Your task to perform on an android device: Open Android settings Image 0: 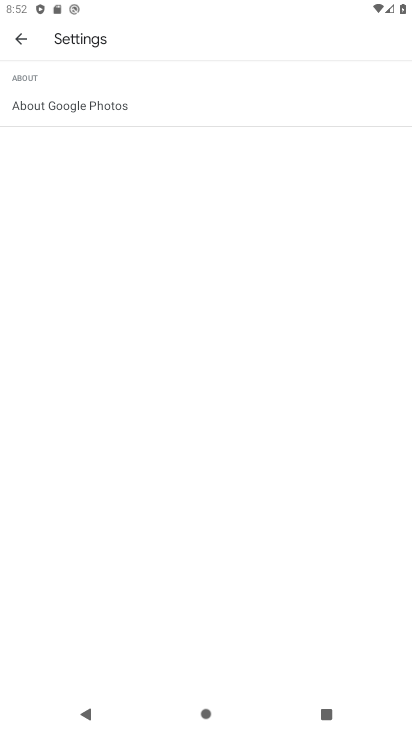
Step 0: press home button
Your task to perform on an android device: Open Android settings Image 1: 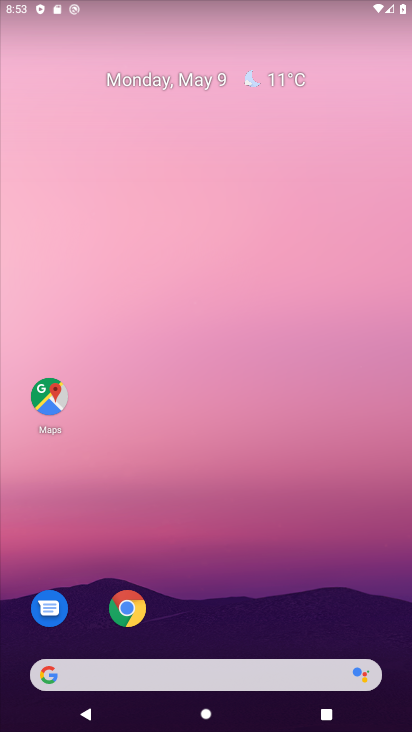
Step 1: drag from (203, 474) to (204, 239)
Your task to perform on an android device: Open Android settings Image 2: 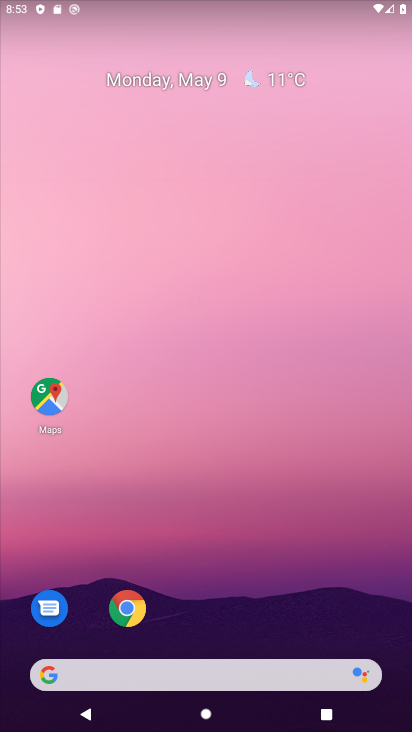
Step 2: drag from (179, 543) to (222, 215)
Your task to perform on an android device: Open Android settings Image 3: 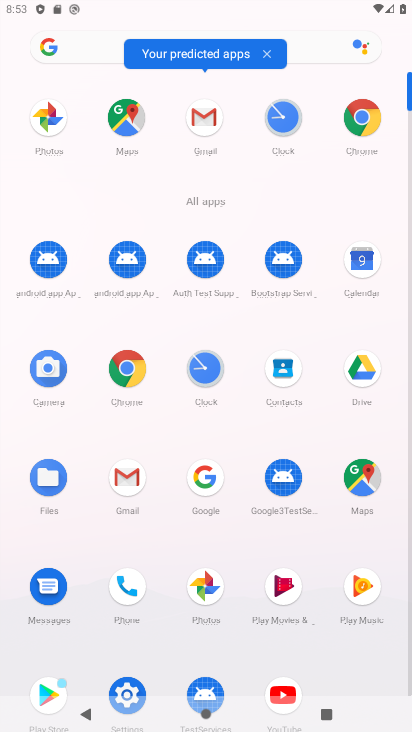
Step 3: click (133, 687)
Your task to perform on an android device: Open Android settings Image 4: 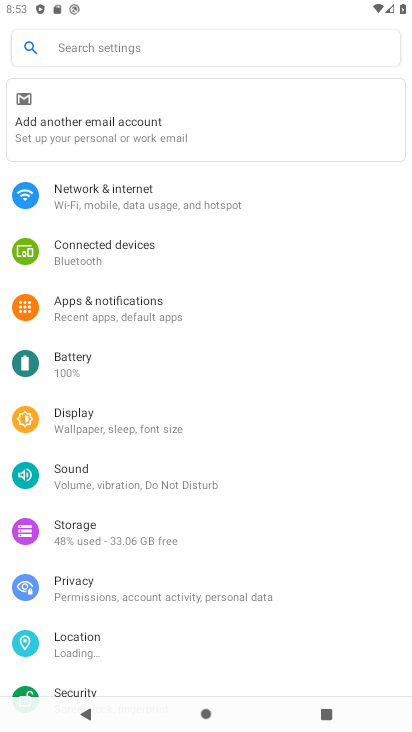
Step 4: task complete